Your task to perform on an android device: Toggle the flashlight Image 0: 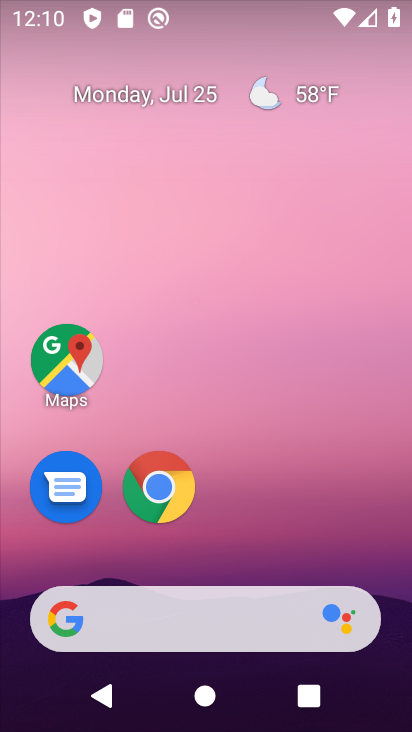
Step 0: drag from (182, 557) to (322, 29)
Your task to perform on an android device: Toggle the flashlight Image 1: 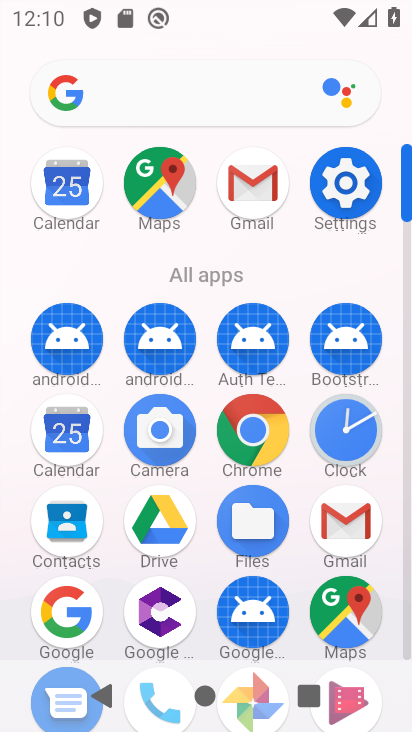
Step 1: click (345, 170)
Your task to perform on an android device: Toggle the flashlight Image 2: 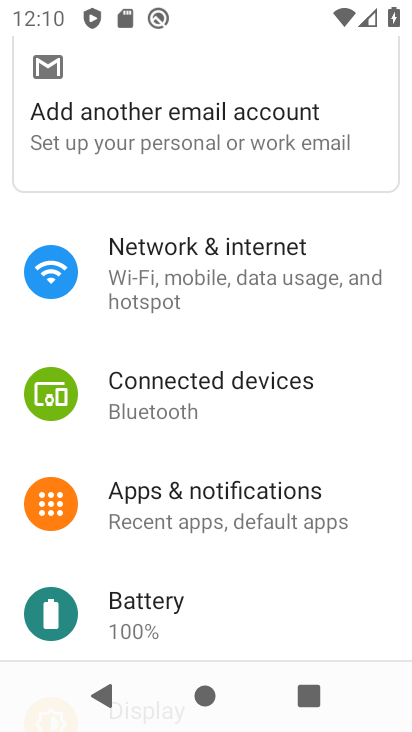
Step 2: drag from (198, 306) to (178, 730)
Your task to perform on an android device: Toggle the flashlight Image 3: 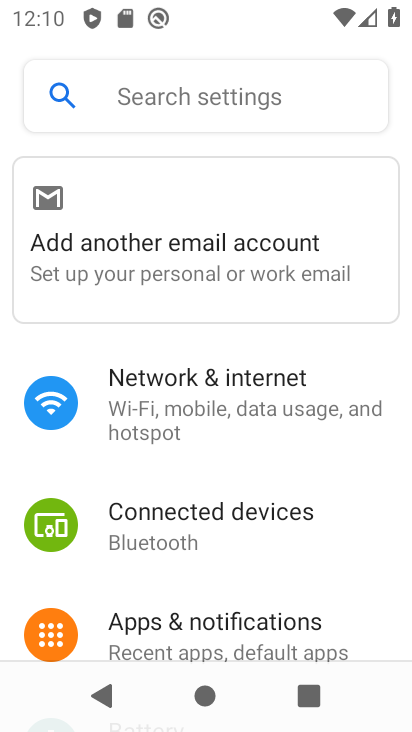
Step 3: click (149, 90)
Your task to perform on an android device: Toggle the flashlight Image 4: 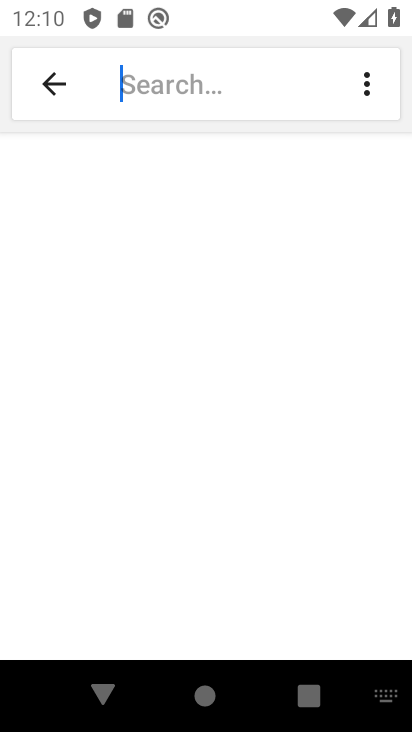
Step 4: type "flashlight"
Your task to perform on an android device: Toggle the flashlight Image 5: 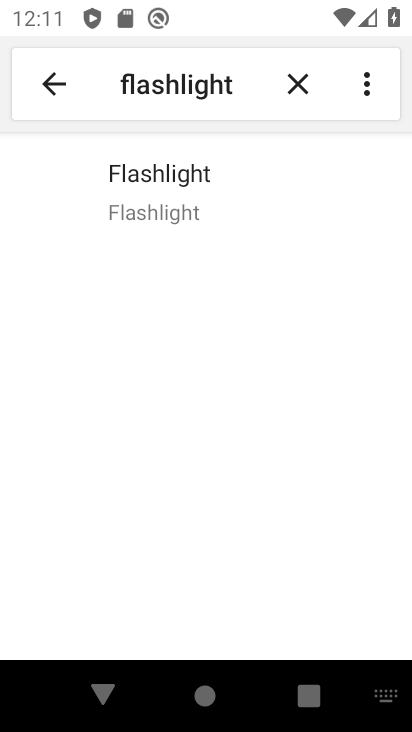
Step 5: click (149, 190)
Your task to perform on an android device: Toggle the flashlight Image 6: 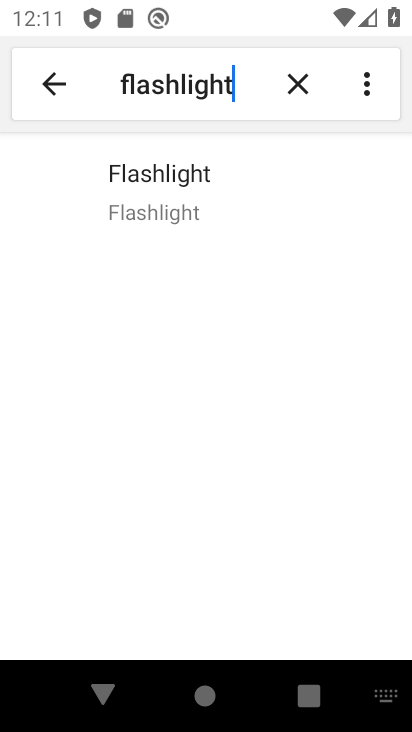
Step 6: task complete